Your task to perform on an android device: turn off airplane mode Image 0: 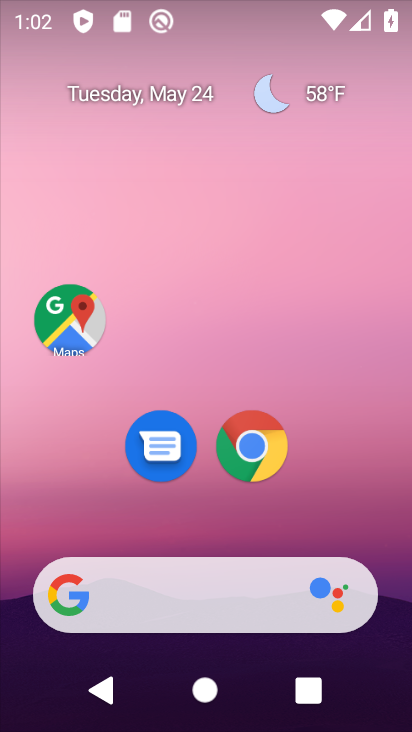
Step 0: drag from (189, 428) to (58, 52)
Your task to perform on an android device: turn off airplane mode Image 1: 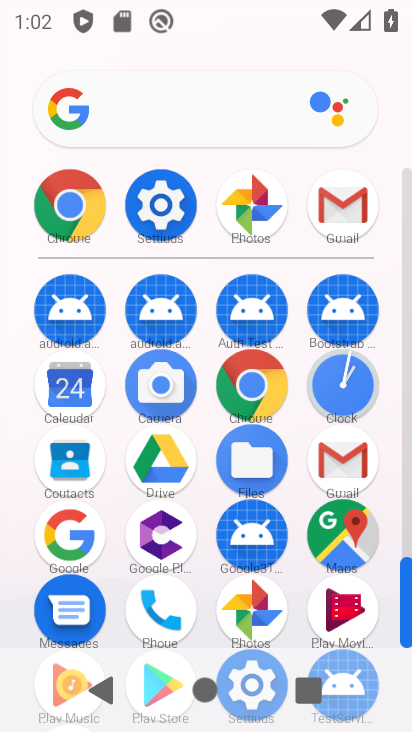
Step 1: drag from (241, 535) to (229, 333)
Your task to perform on an android device: turn off airplane mode Image 2: 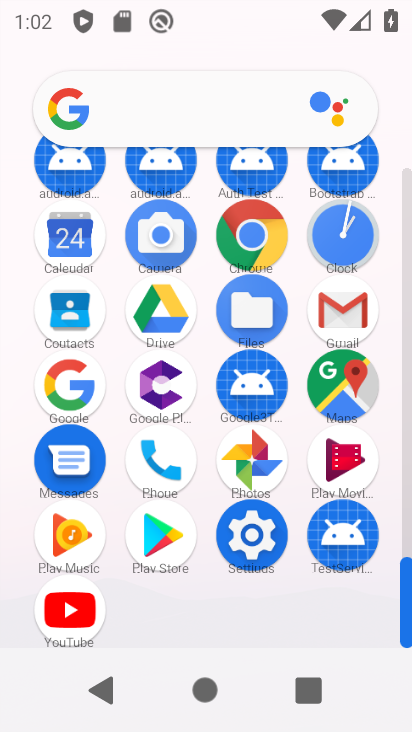
Step 2: click (241, 537)
Your task to perform on an android device: turn off airplane mode Image 3: 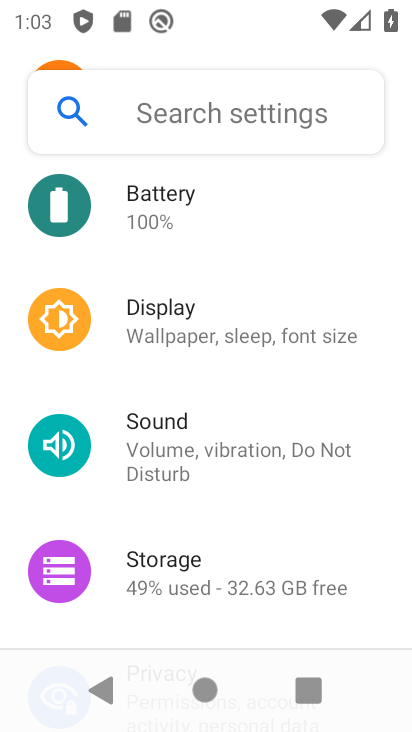
Step 3: drag from (194, 262) to (122, 685)
Your task to perform on an android device: turn off airplane mode Image 4: 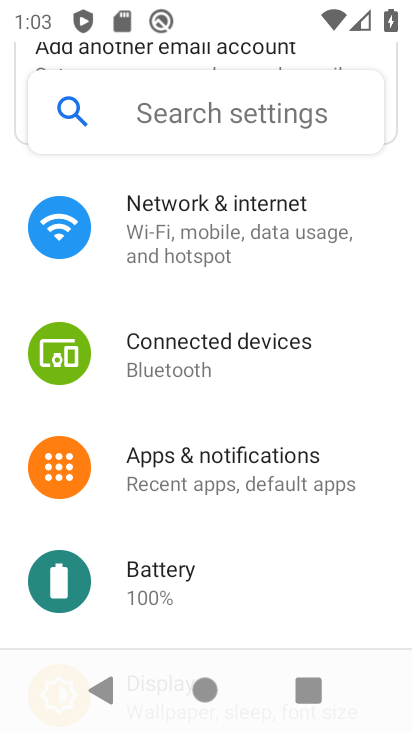
Step 4: drag from (166, 335) to (159, 725)
Your task to perform on an android device: turn off airplane mode Image 5: 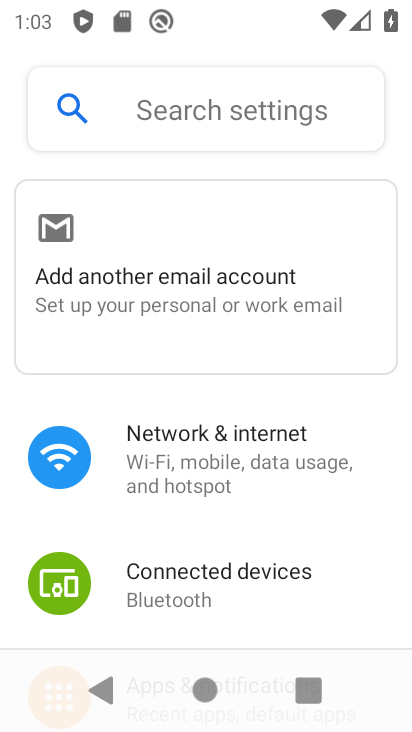
Step 5: click (235, 467)
Your task to perform on an android device: turn off airplane mode Image 6: 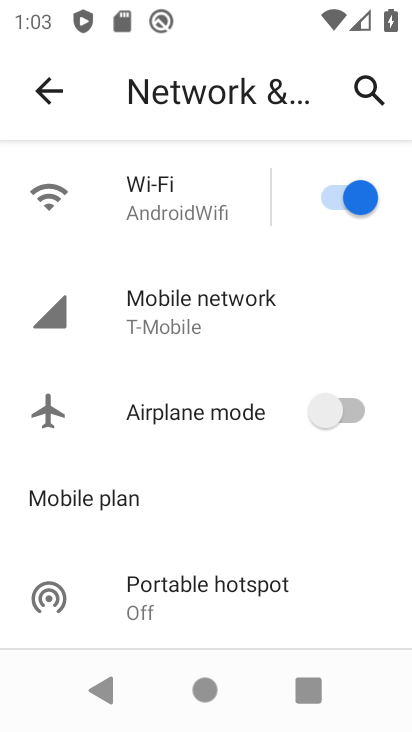
Step 6: task complete